Your task to perform on an android device: uninstall "Google Docs" Image 0: 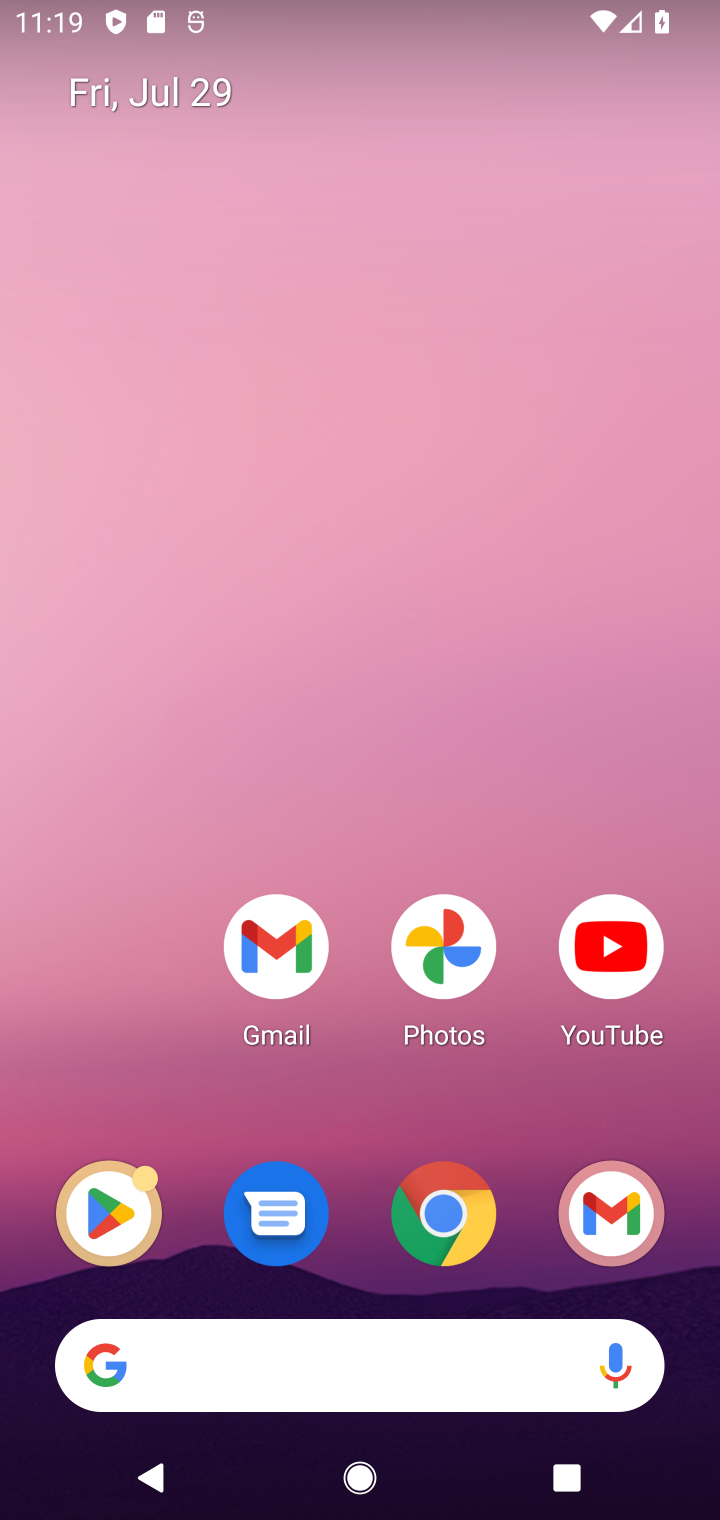
Step 0: click (633, 1205)
Your task to perform on an android device: uninstall "Google Docs" Image 1: 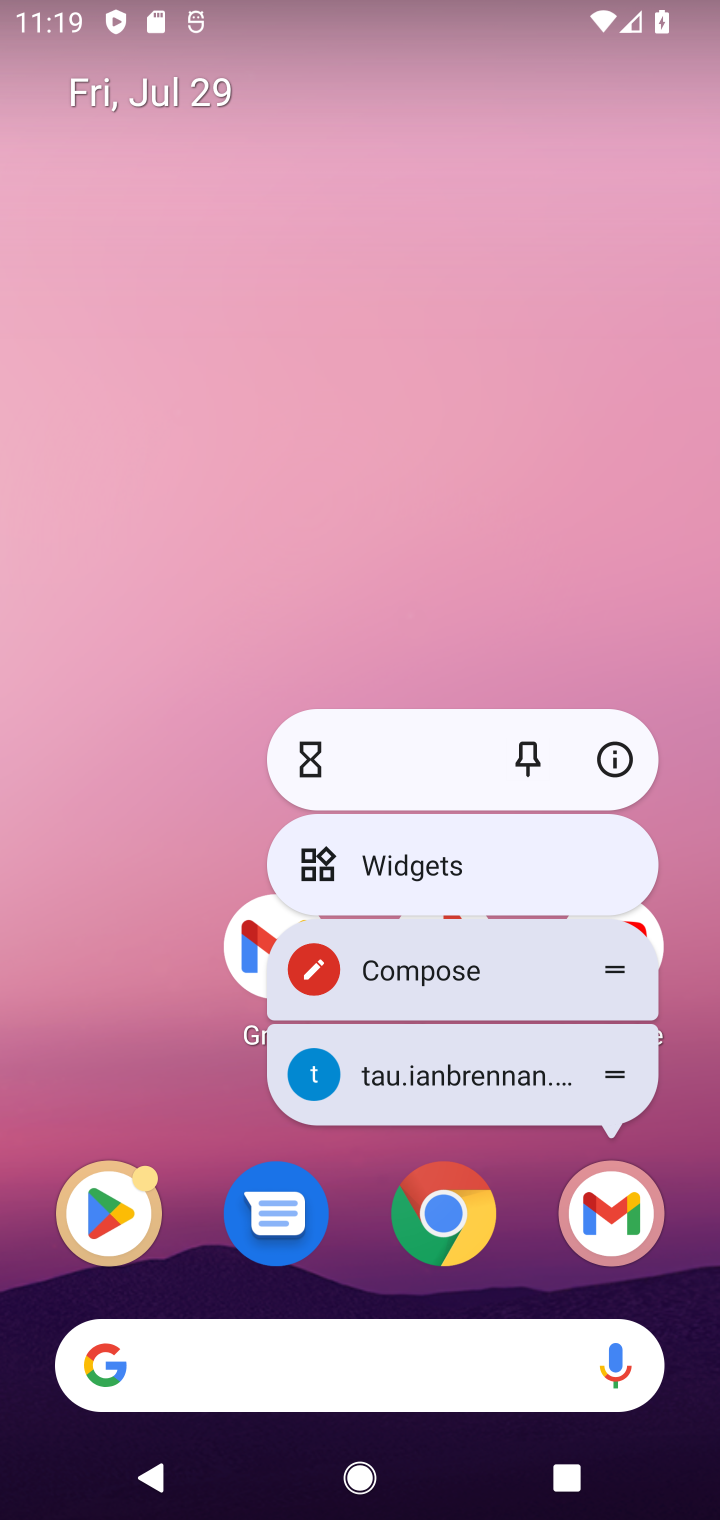
Step 1: click (633, 1205)
Your task to perform on an android device: uninstall "Google Docs" Image 2: 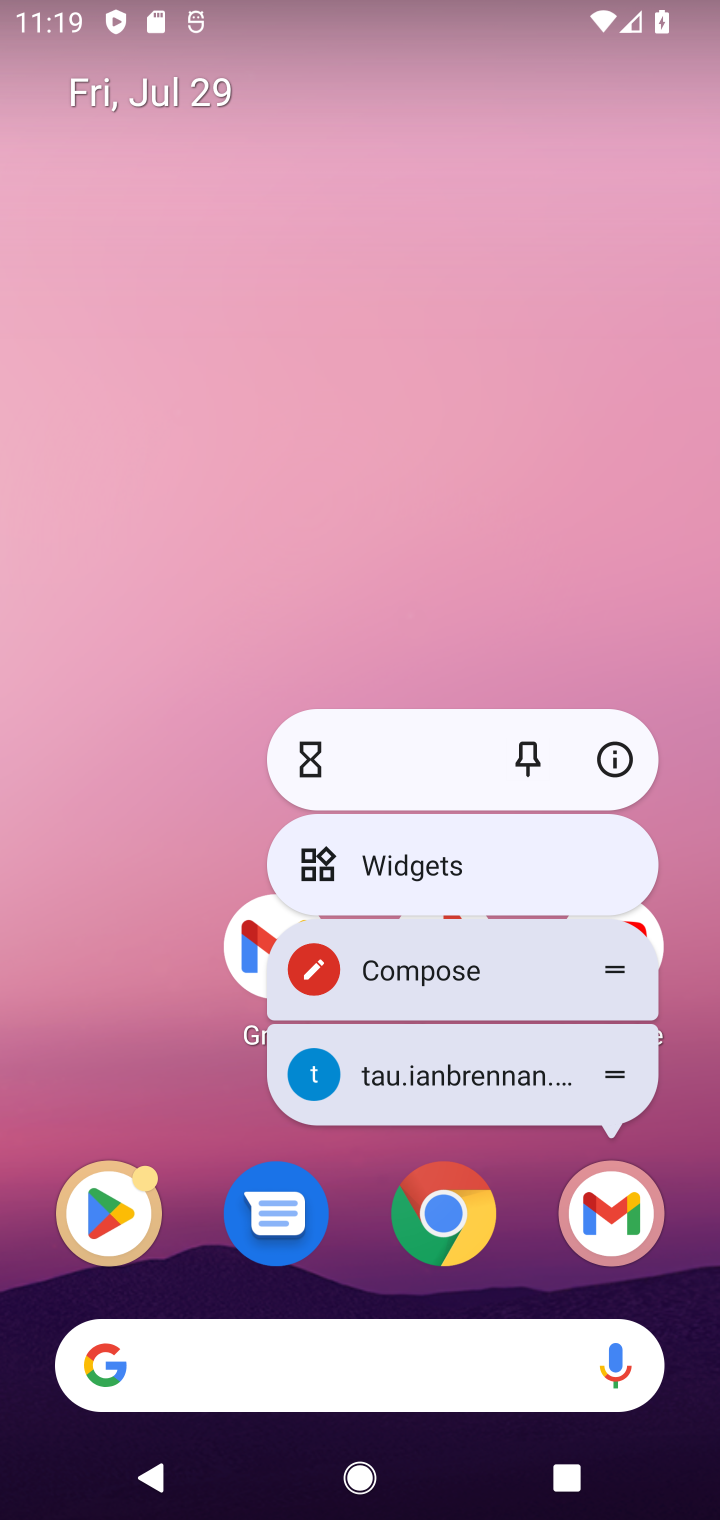
Step 2: press home button
Your task to perform on an android device: uninstall "Google Docs" Image 3: 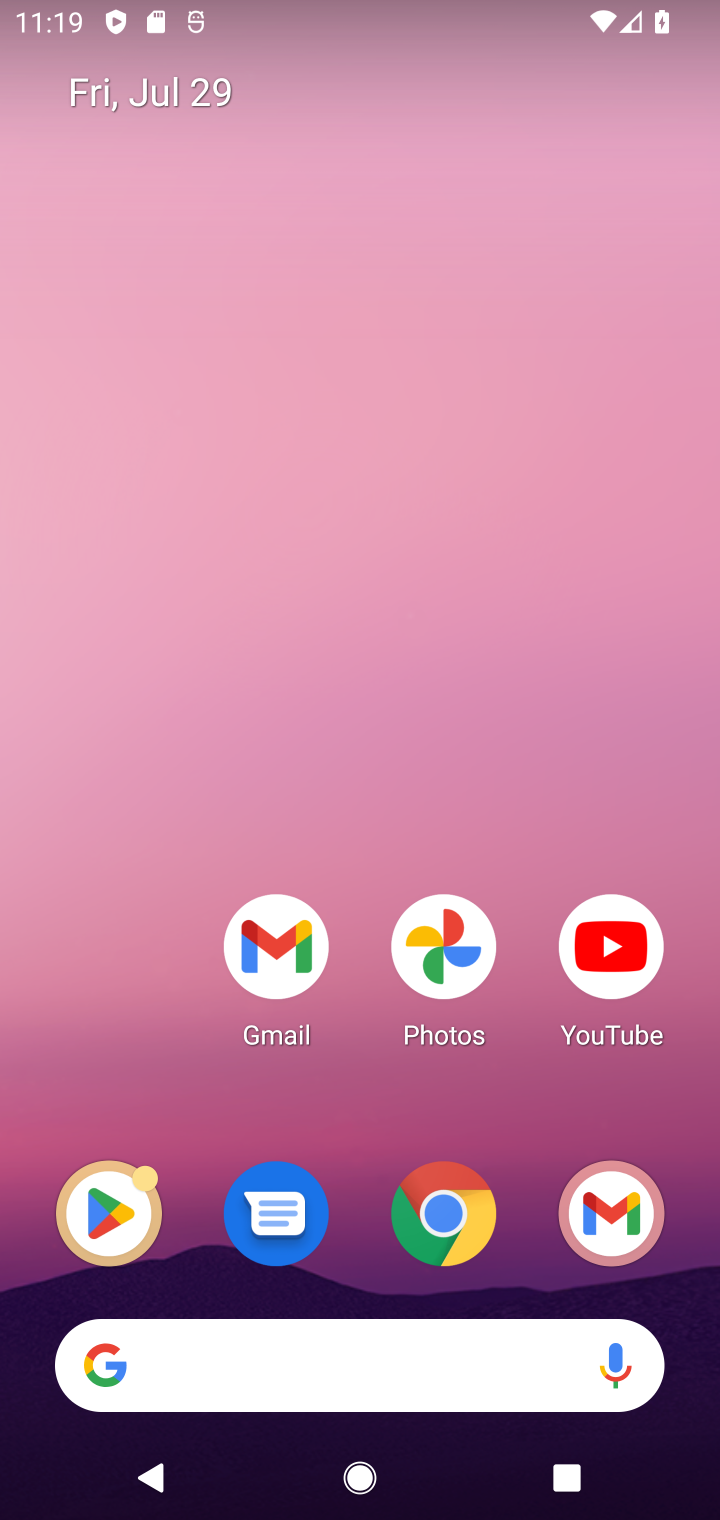
Step 3: drag from (286, 1387) to (344, 453)
Your task to perform on an android device: uninstall "Google Docs" Image 4: 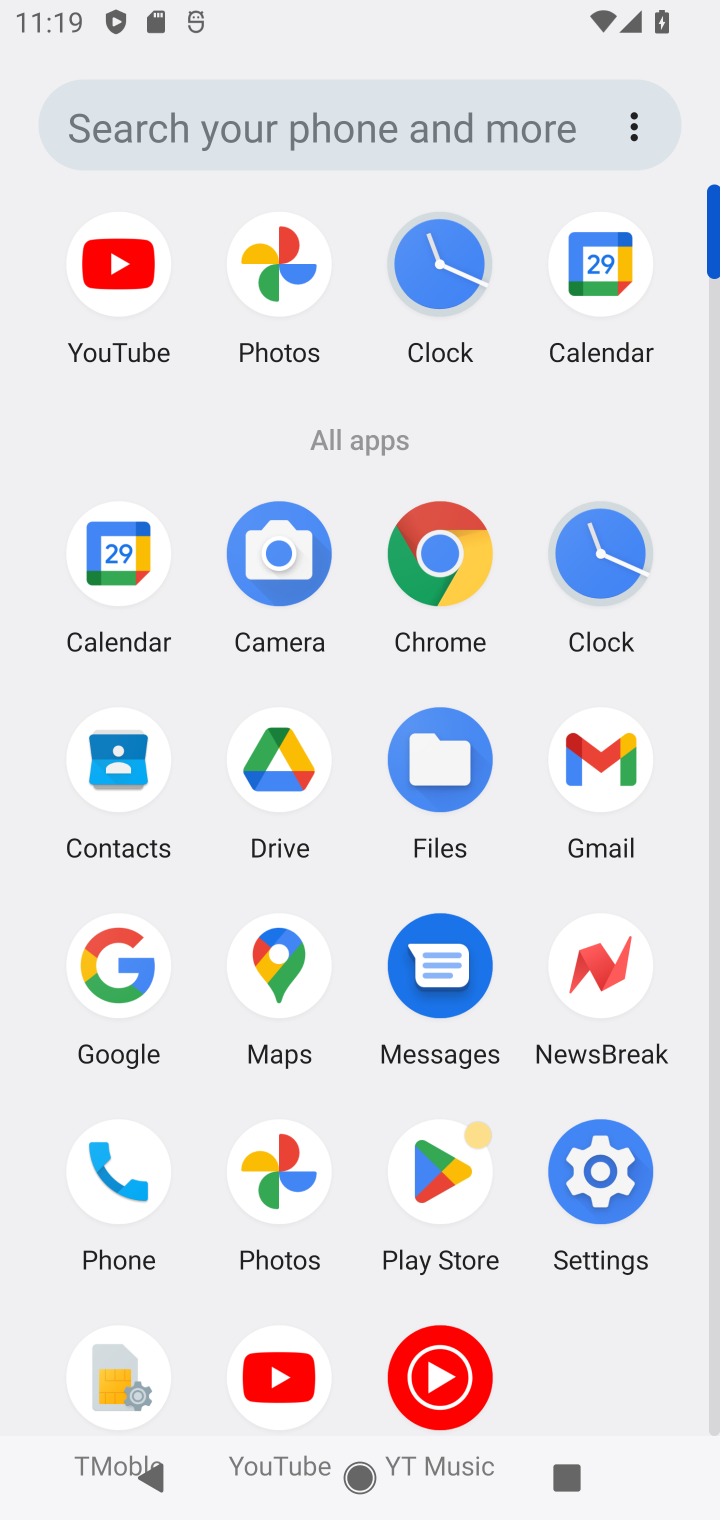
Step 4: click (422, 1189)
Your task to perform on an android device: uninstall "Google Docs" Image 5: 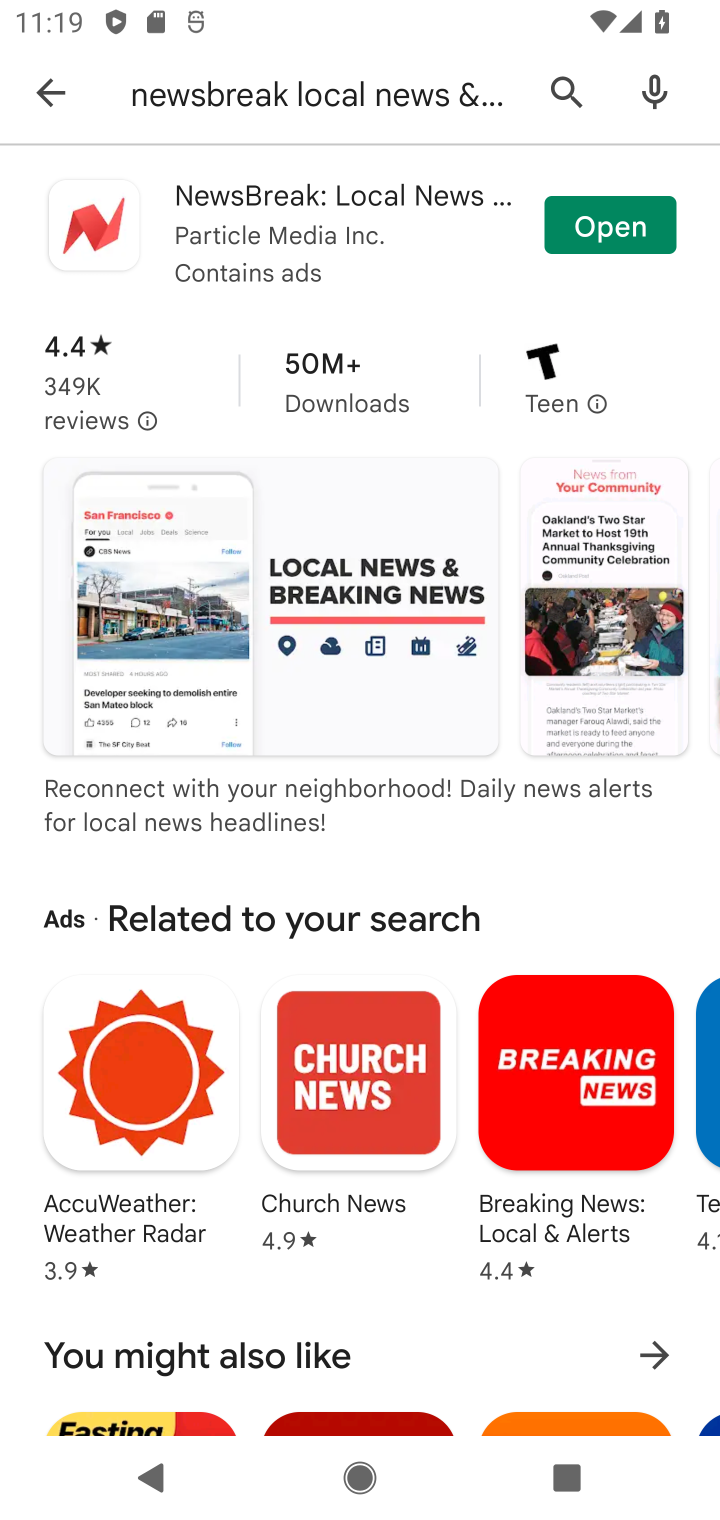
Step 5: click (549, 93)
Your task to perform on an android device: uninstall "Google Docs" Image 6: 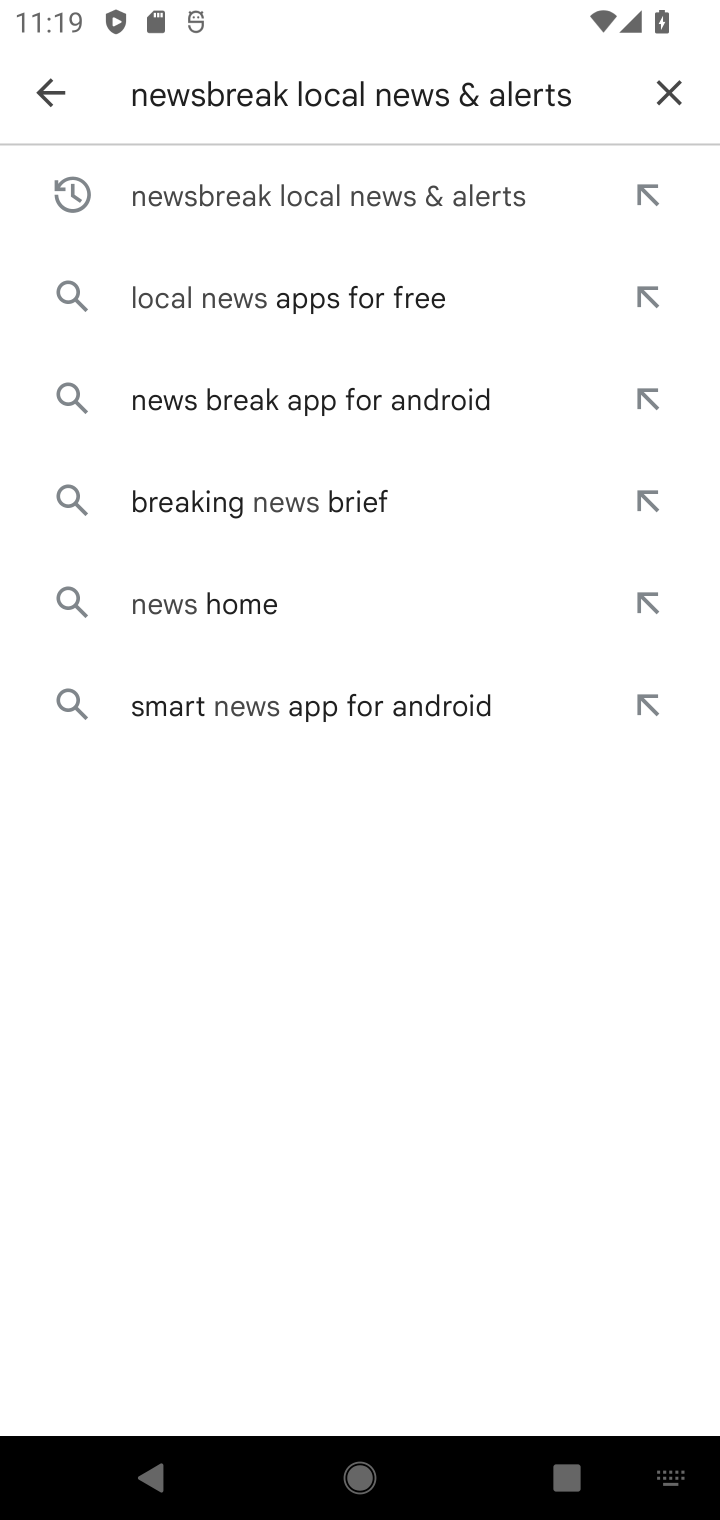
Step 6: click (675, 93)
Your task to perform on an android device: uninstall "Google Docs" Image 7: 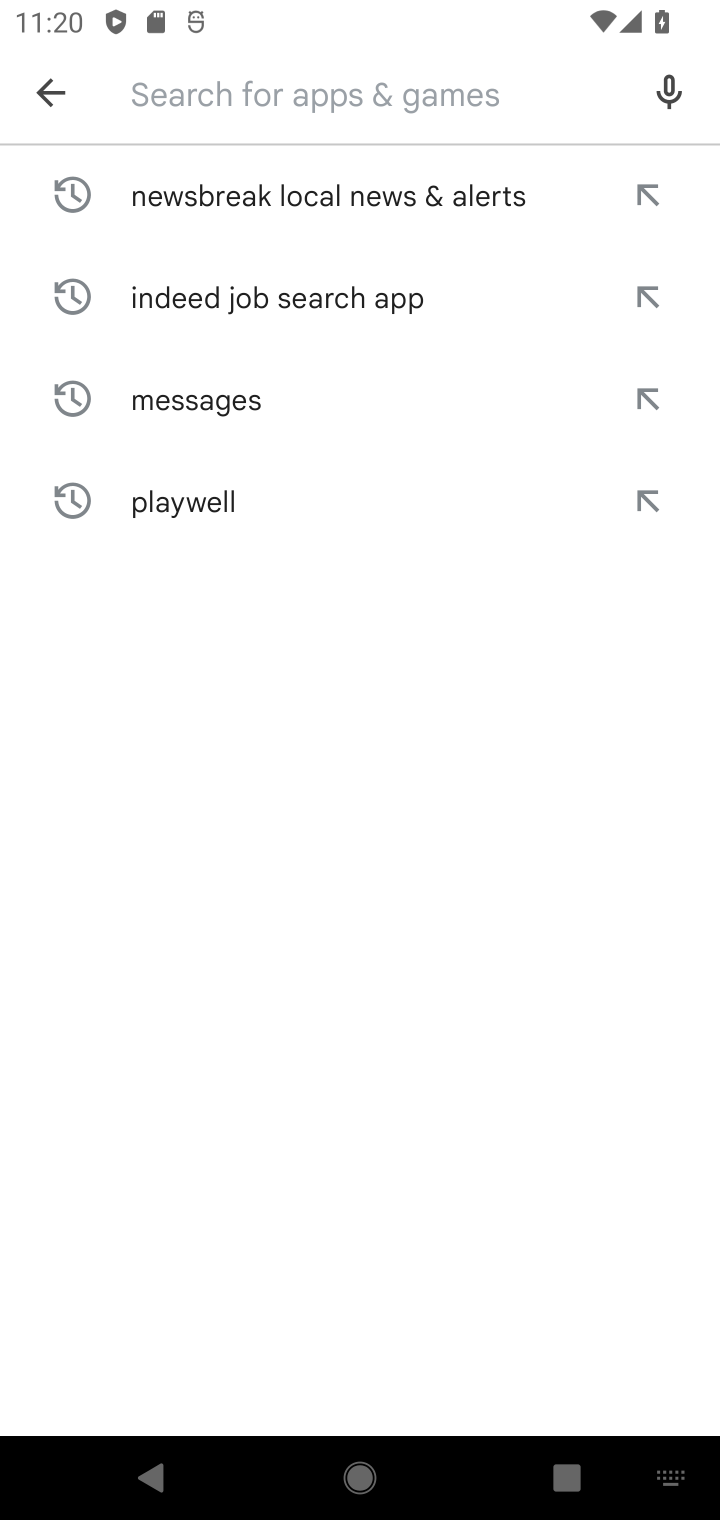
Step 7: type "Google Docs"
Your task to perform on an android device: uninstall "Google Docs" Image 8: 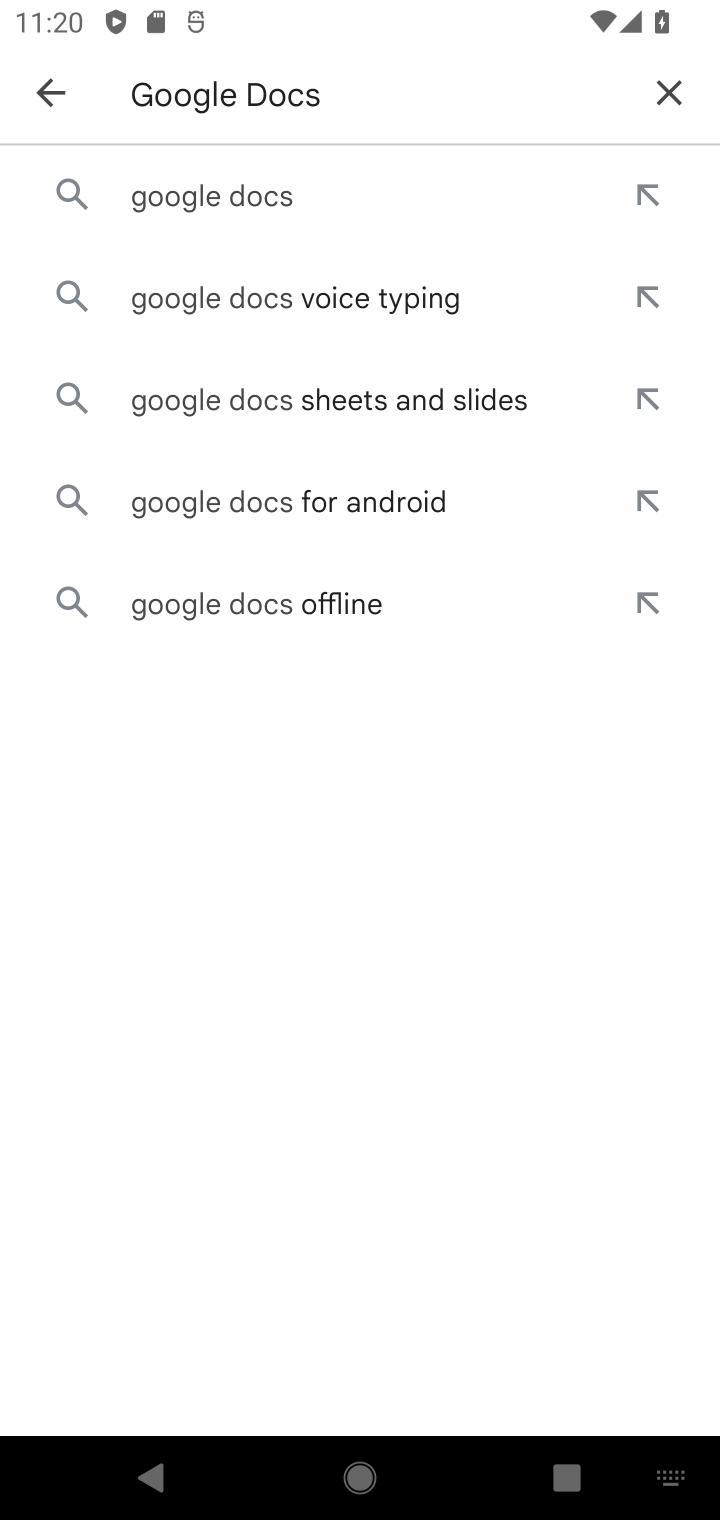
Step 8: click (265, 195)
Your task to perform on an android device: uninstall "Google Docs" Image 9: 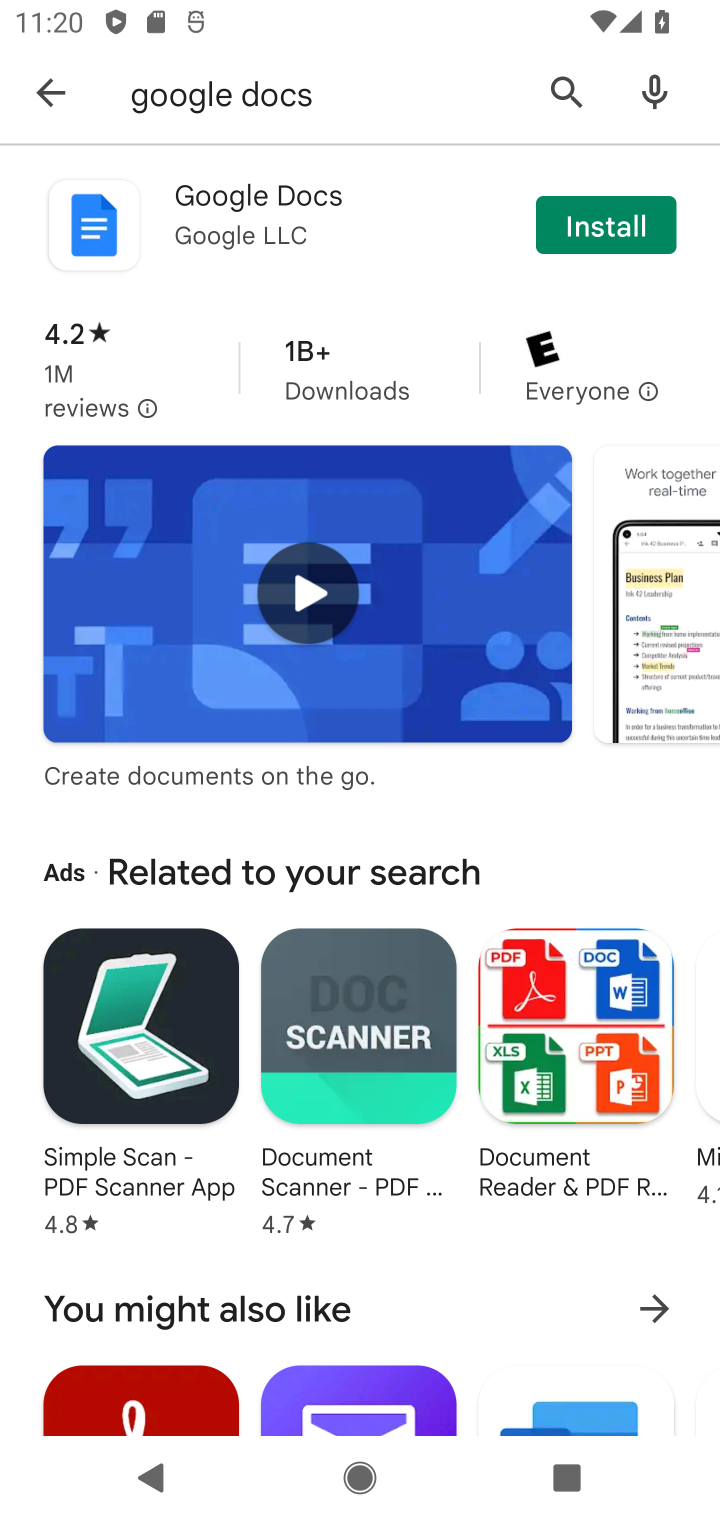
Step 9: task complete